Your task to perform on an android device: toggle data saver in the chrome app Image 0: 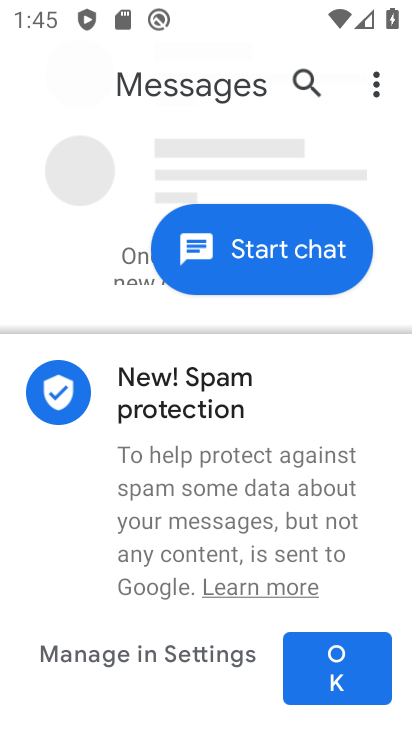
Step 0: press home button
Your task to perform on an android device: toggle data saver in the chrome app Image 1: 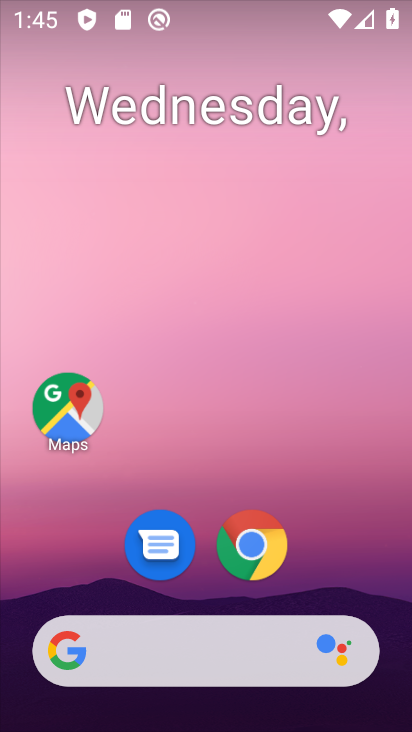
Step 1: click (283, 537)
Your task to perform on an android device: toggle data saver in the chrome app Image 2: 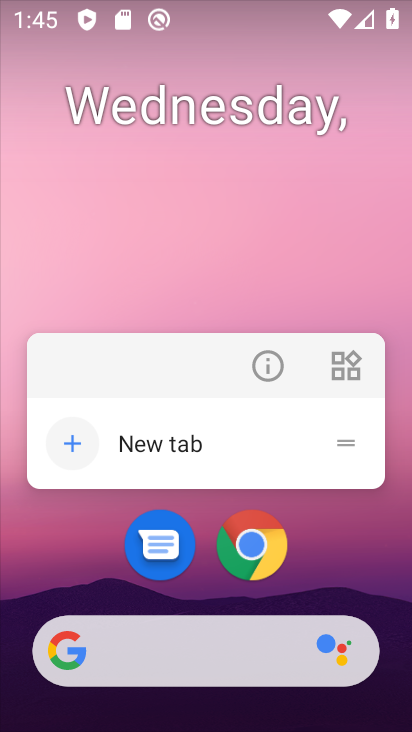
Step 2: click (249, 538)
Your task to perform on an android device: toggle data saver in the chrome app Image 3: 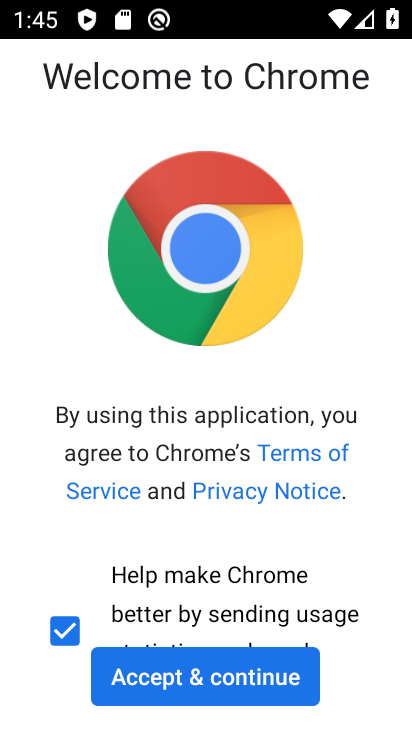
Step 3: click (208, 662)
Your task to perform on an android device: toggle data saver in the chrome app Image 4: 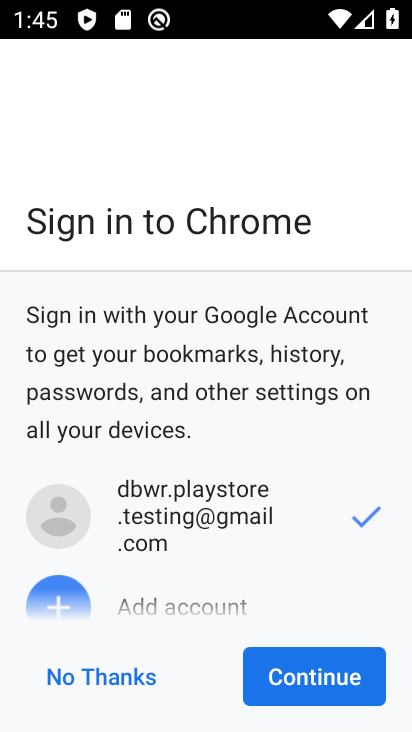
Step 4: click (365, 680)
Your task to perform on an android device: toggle data saver in the chrome app Image 5: 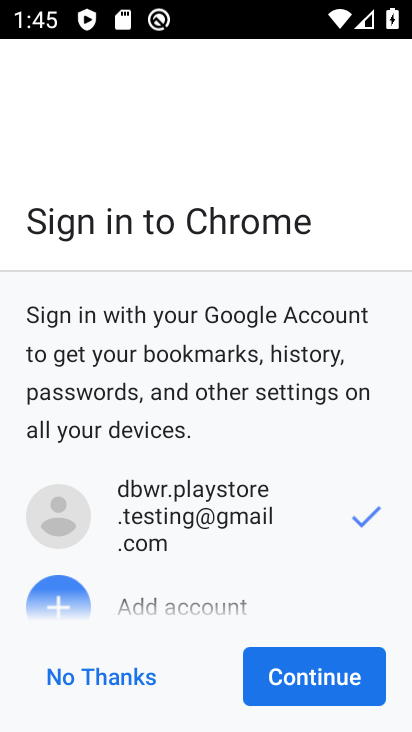
Step 5: click (365, 680)
Your task to perform on an android device: toggle data saver in the chrome app Image 6: 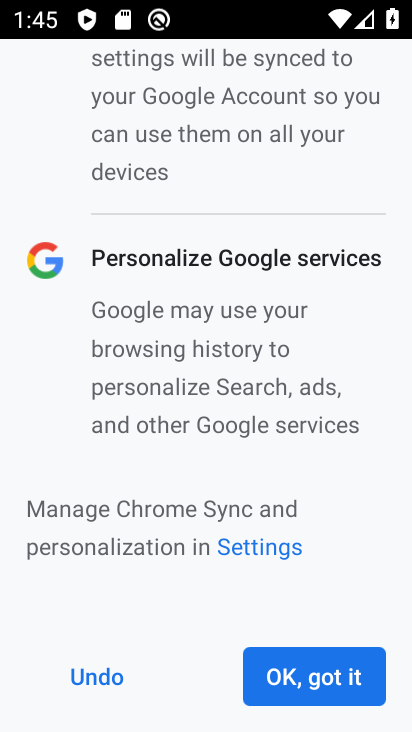
Step 6: click (365, 678)
Your task to perform on an android device: toggle data saver in the chrome app Image 7: 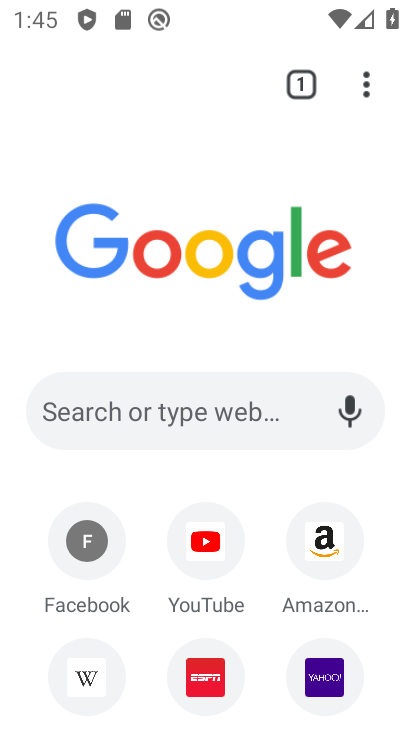
Step 7: click (358, 83)
Your task to perform on an android device: toggle data saver in the chrome app Image 8: 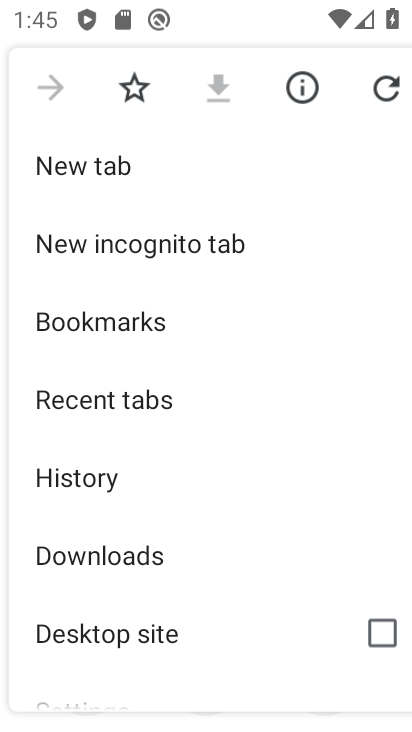
Step 8: drag from (254, 495) to (272, 223)
Your task to perform on an android device: toggle data saver in the chrome app Image 9: 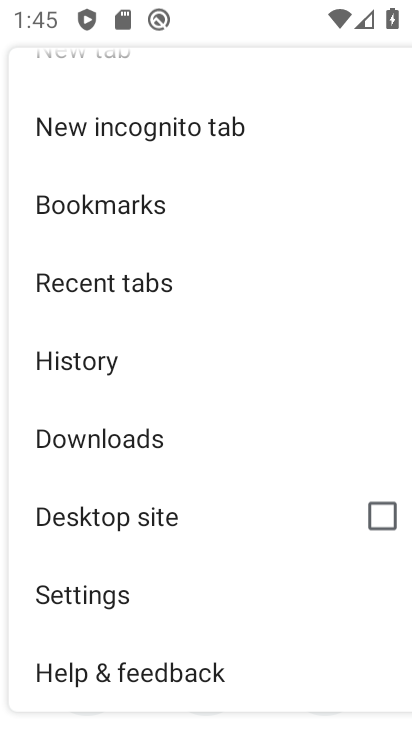
Step 9: click (163, 596)
Your task to perform on an android device: toggle data saver in the chrome app Image 10: 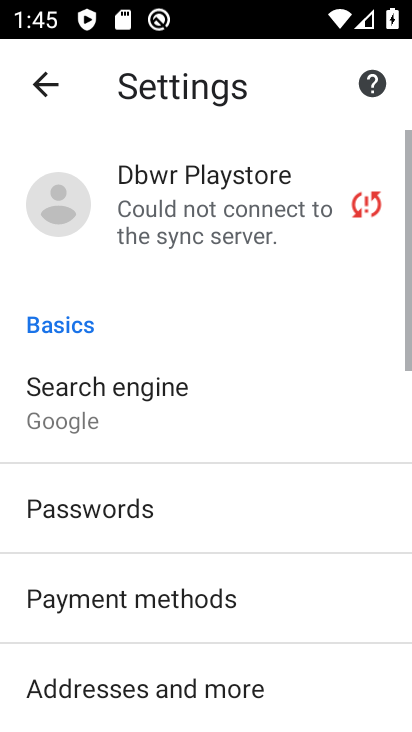
Step 10: drag from (278, 540) to (292, 189)
Your task to perform on an android device: toggle data saver in the chrome app Image 11: 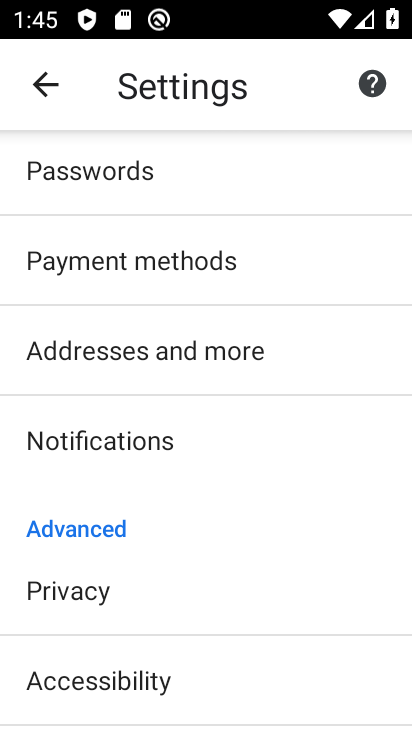
Step 11: drag from (211, 527) to (183, 199)
Your task to perform on an android device: toggle data saver in the chrome app Image 12: 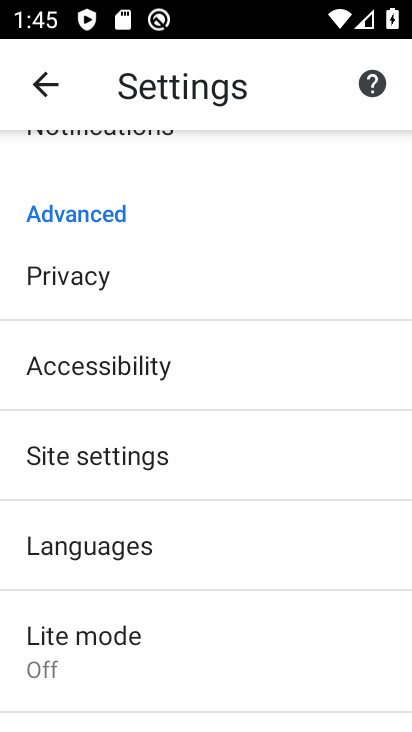
Step 12: click (205, 673)
Your task to perform on an android device: toggle data saver in the chrome app Image 13: 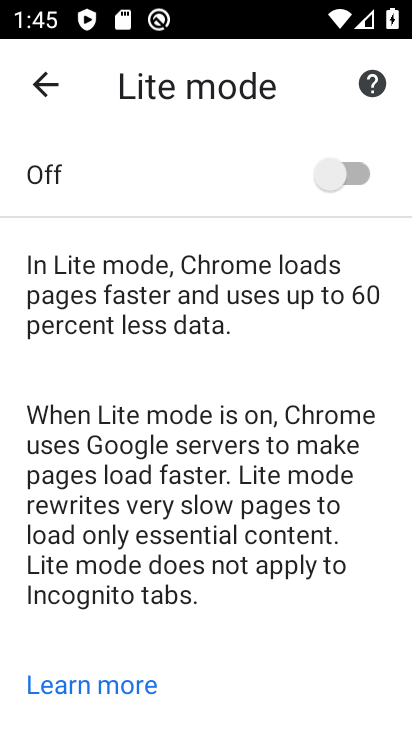
Step 13: click (364, 170)
Your task to perform on an android device: toggle data saver in the chrome app Image 14: 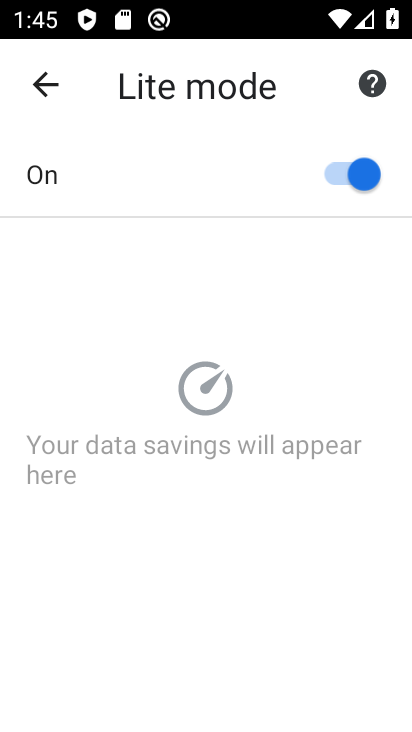
Step 14: task complete